Your task to perform on an android device: Go to network settings Image 0: 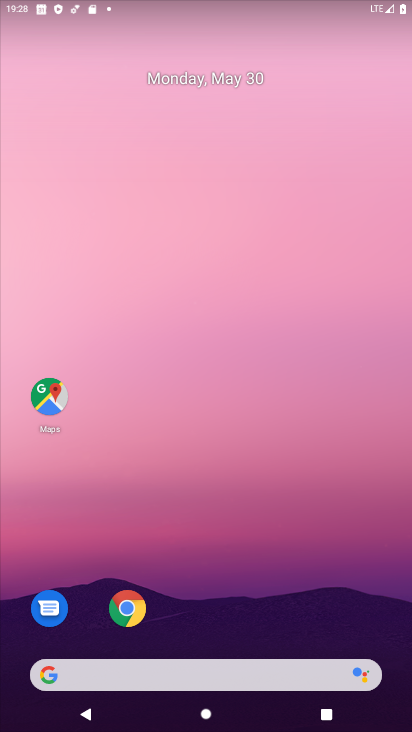
Step 0: drag from (263, 622) to (330, 114)
Your task to perform on an android device: Go to network settings Image 1: 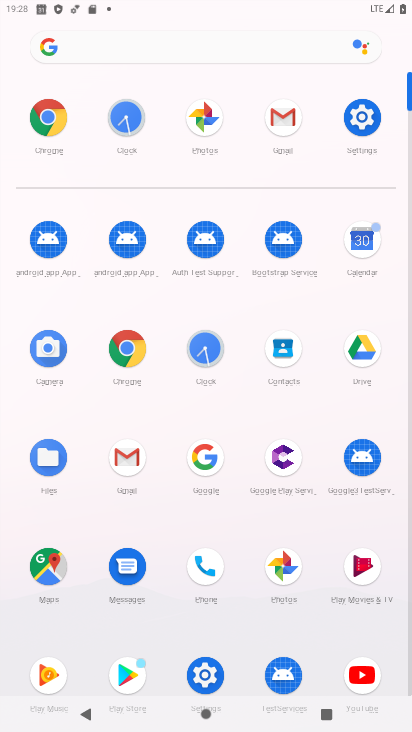
Step 1: click (205, 667)
Your task to perform on an android device: Go to network settings Image 2: 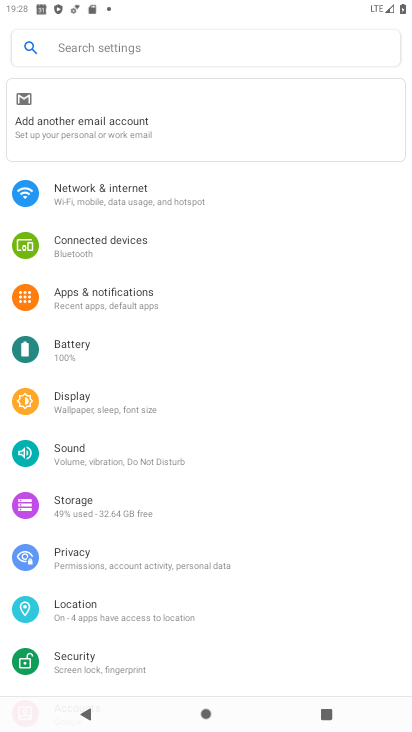
Step 2: click (146, 172)
Your task to perform on an android device: Go to network settings Image 3: 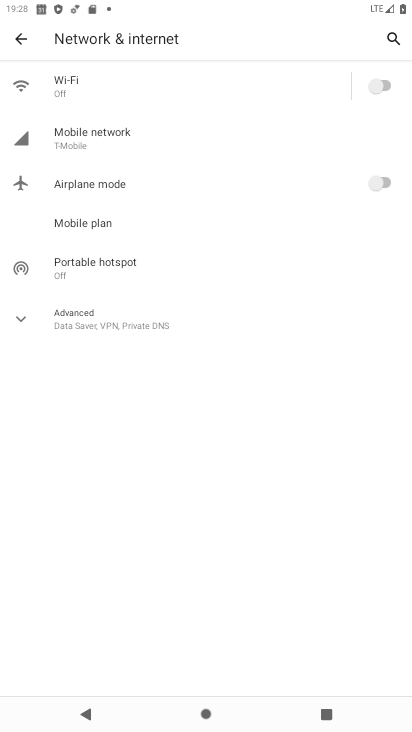
Step 3: task complete